Your task to perform on an android device: Is it going to rain this weekend? Image 0: 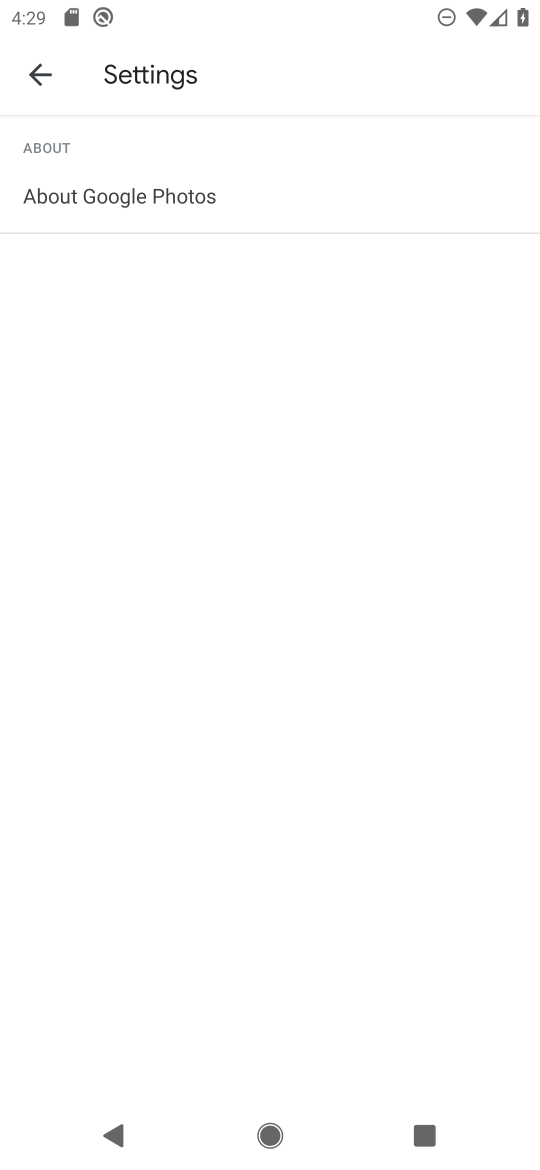
Step 0: press back button
Your task to perform on an android device: Is it going to rain this weekend? Image 1: 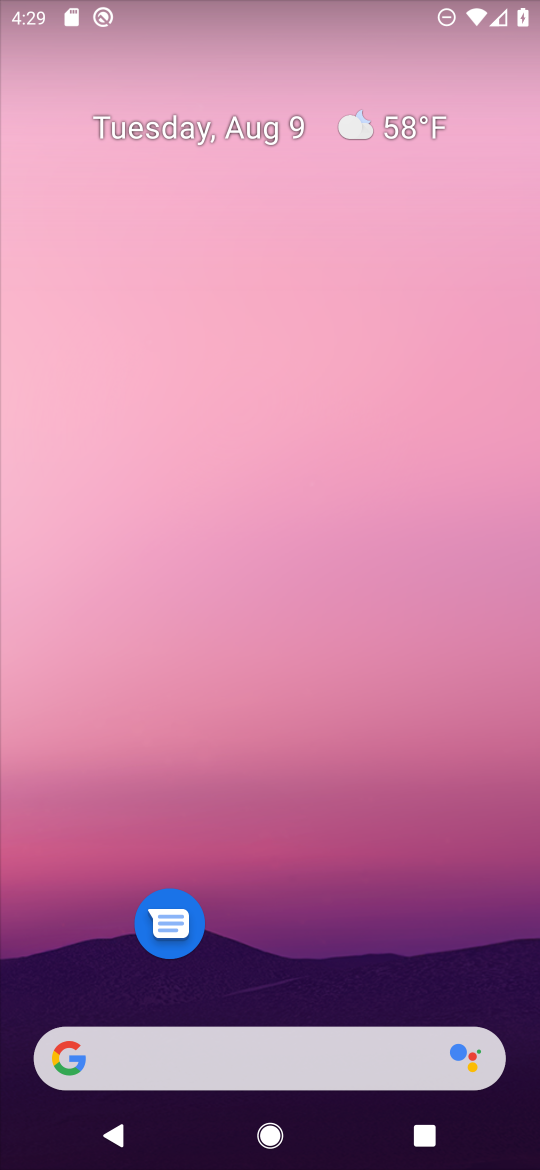
Step 1: drag from (327, 990) to (463, 147)
Your task to perform on an android device: Is it going to rain this weekend? Image 2: 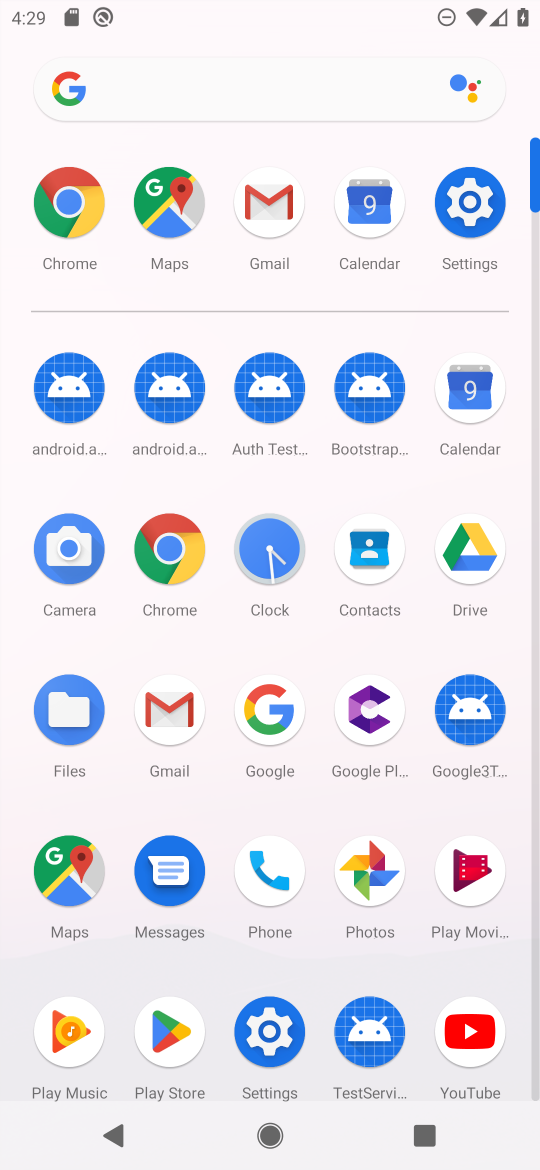
Step 2: click (217, 75)
Your task to perform on an android device: Is it going to rain this weekend? Image 3: 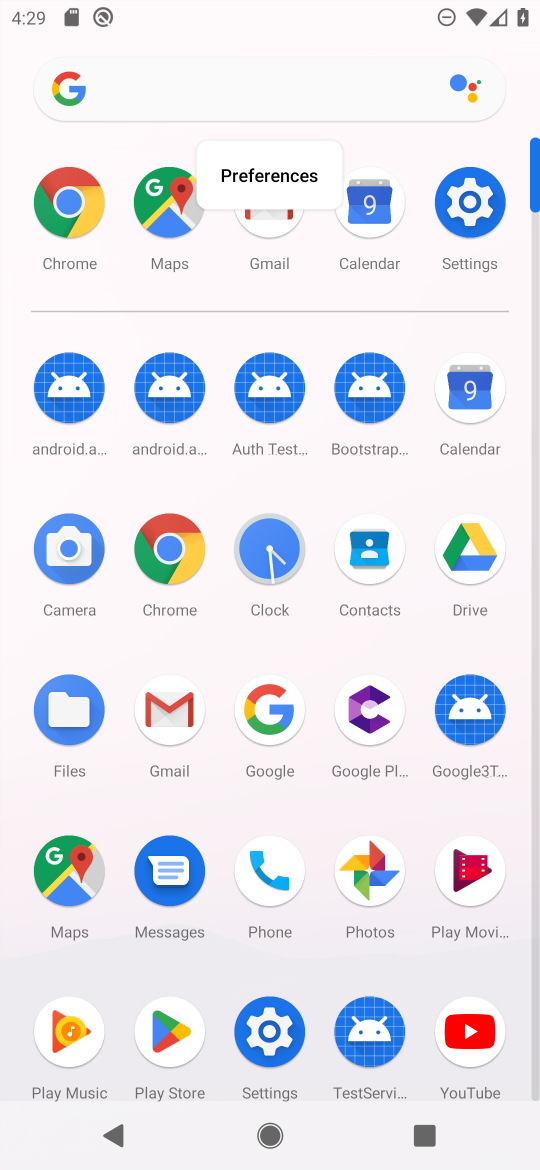
Step 3: click (193, 91)
Your task to perform on an android device: Is it going to rain this weekend? Image 4: 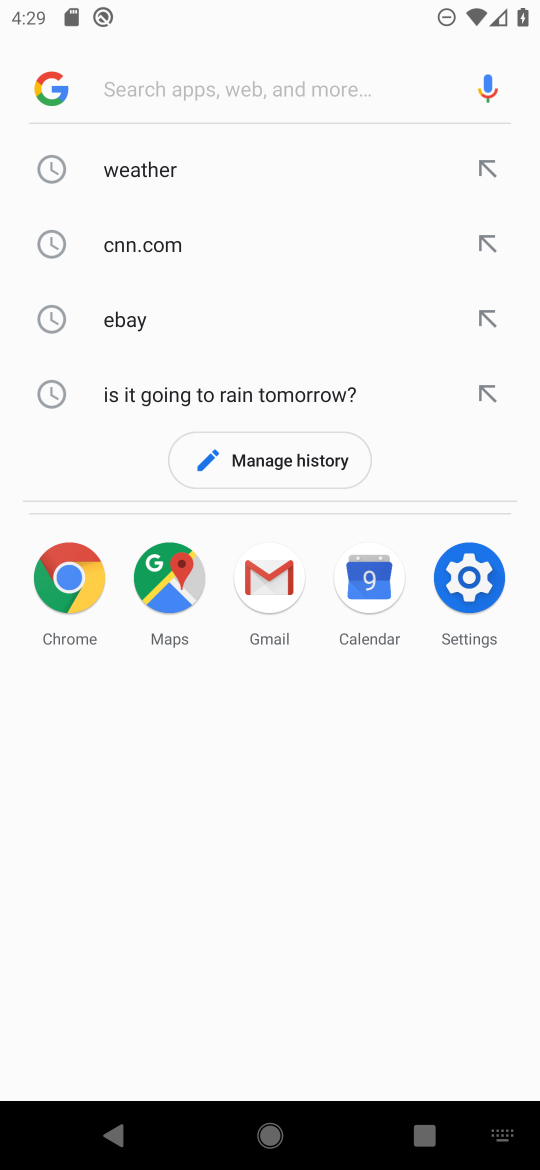
Step 4: click (195, 158)
Your task to perform on an android device: Is it going to rain this weekend? Image 5: 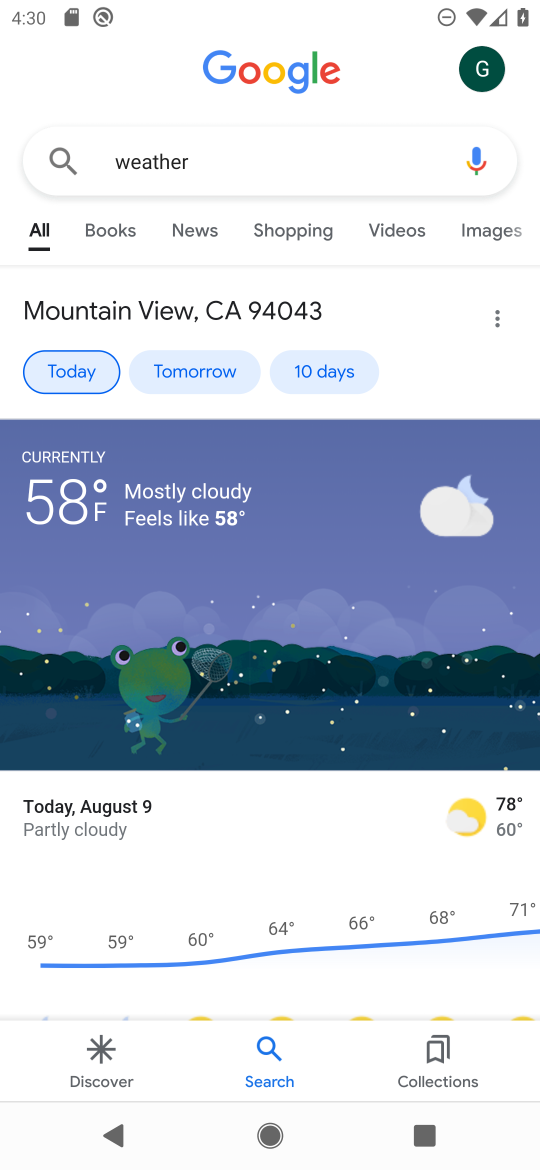
Step 5: click (326, 375)
Your task to perform on an android device: Is it going to rain this weekend? Image 6: 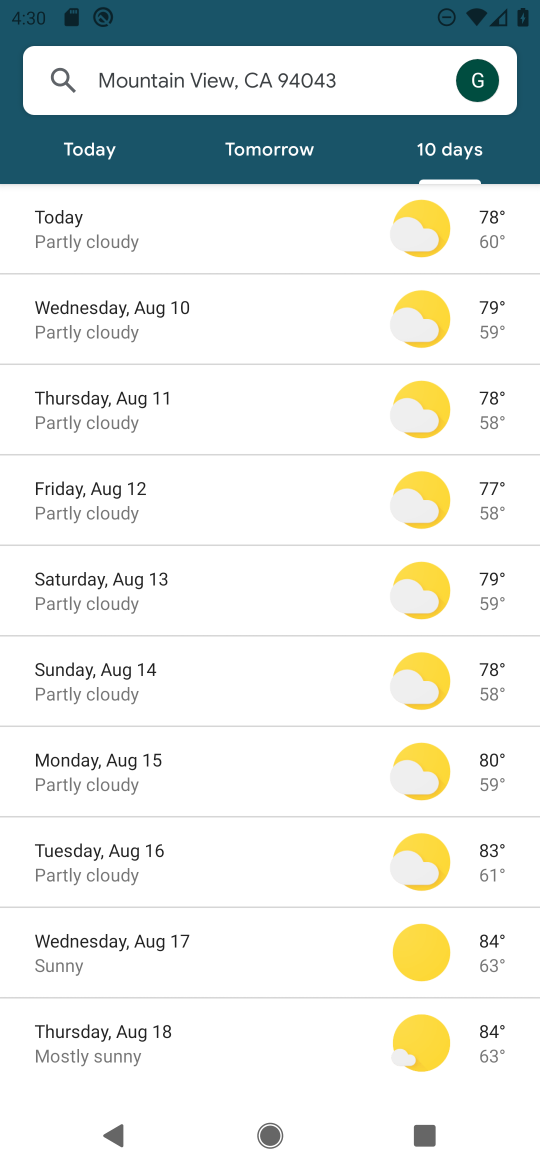
Step 6: task complete